Your task to perform on an android device: Go to notification settings Image 0: 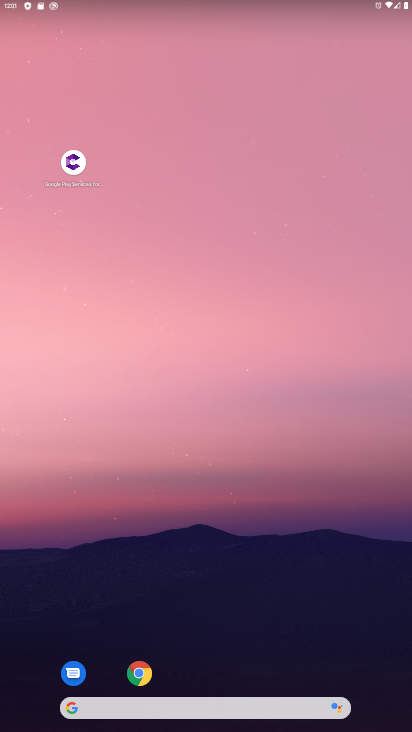
Step 0: drag from (224, 692) to (233, 117)
Your task to perform on an android device: Go to notification settings Image 1: 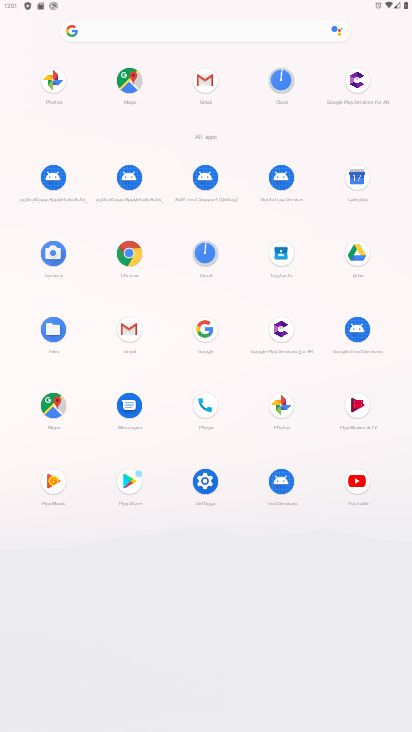
Step 1: click (209, 500)
Your task to perform on an android device: Go to notification settings Image 2: 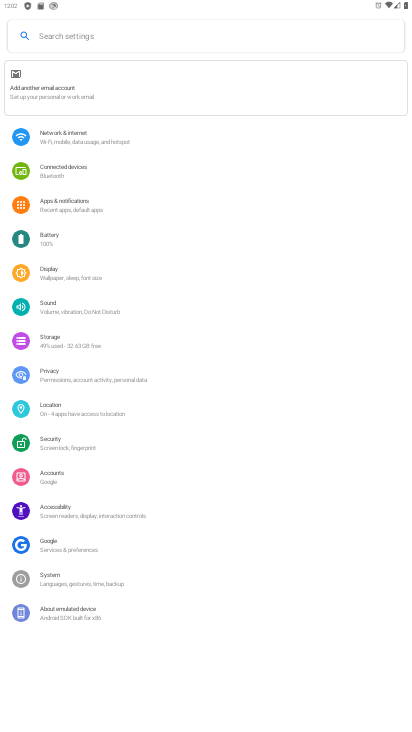
Step 2: click (83, 221)
Your task to perform on an android device: Go to notification settings Image 3: 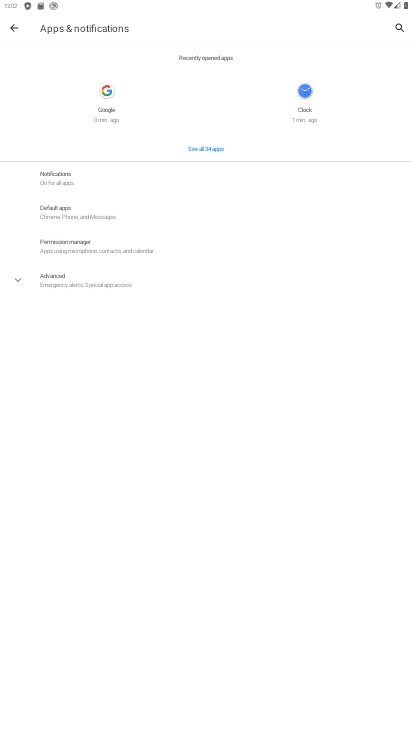
Step 3: click (75, 281)
Your task to perform on an android device: Go to notification settings Image 4: 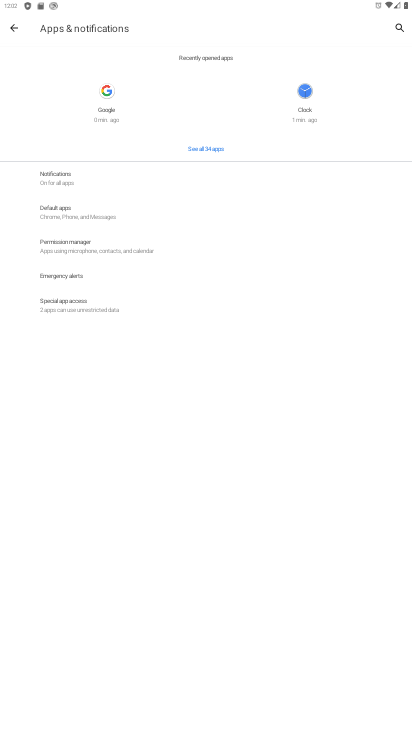
Step 4: task complete